Your task to perform on an android device: Open settings on Google Maps Image 0: 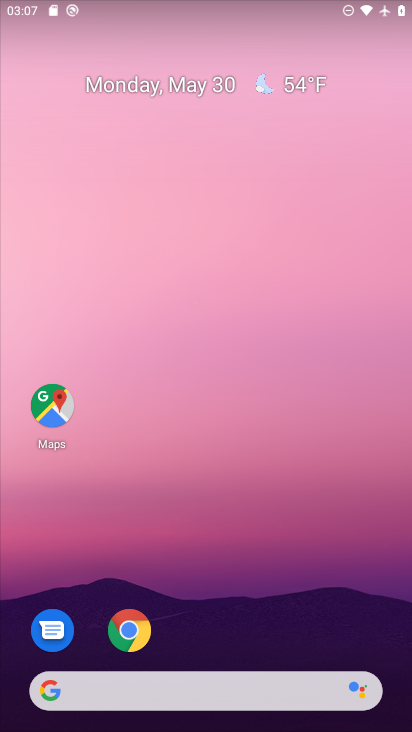
Step 0: click (44, 411)
Your task to perform on an android device: Open settings on Google Maps Image 1: 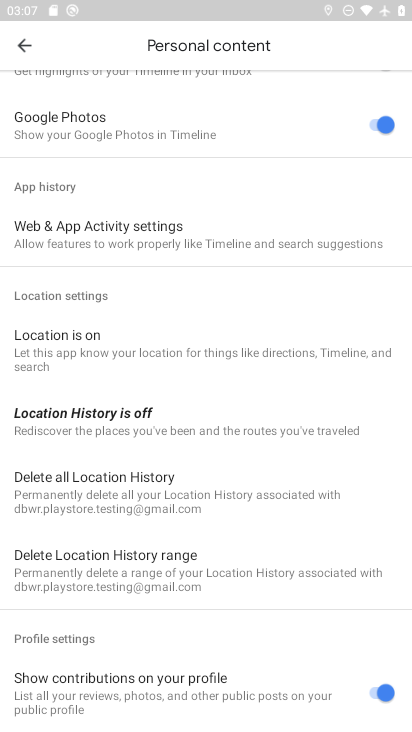
Step 1: click (21, 46)
Your task to perform on an android device: Open settings on Google Maps Image 2: 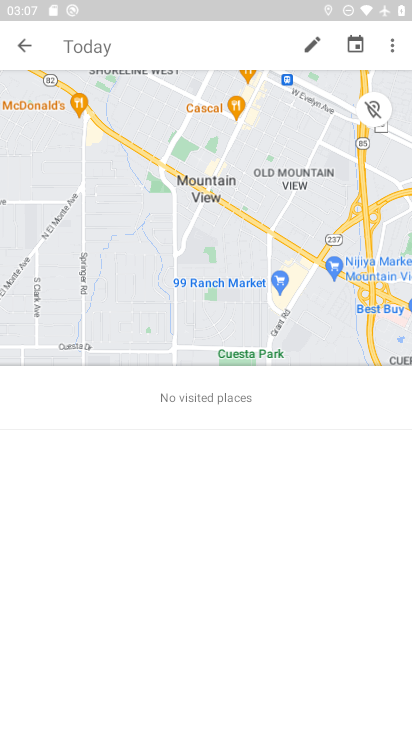
Step 2: click (22, 48)
Your task to perform on an android device: Open settings on Google Maps Image 3: 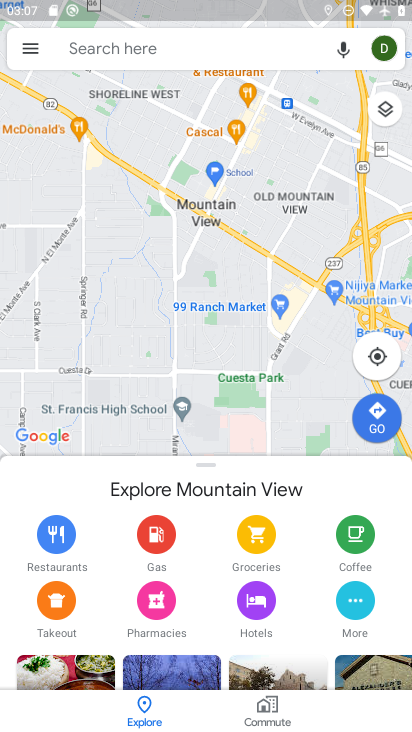
Step 3: click (28, 53)
Your task to perform on an android device: Open settings on Google Maps Image 4: 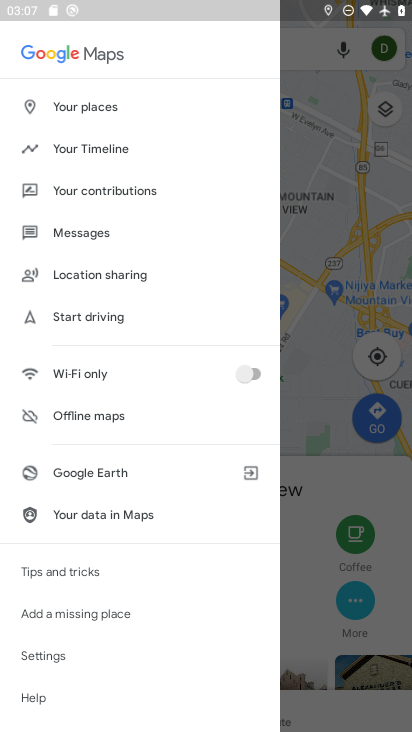
Step 4: click (46, 657)
Your task to perform on an android device: Open settings on Google Maps Image 5: 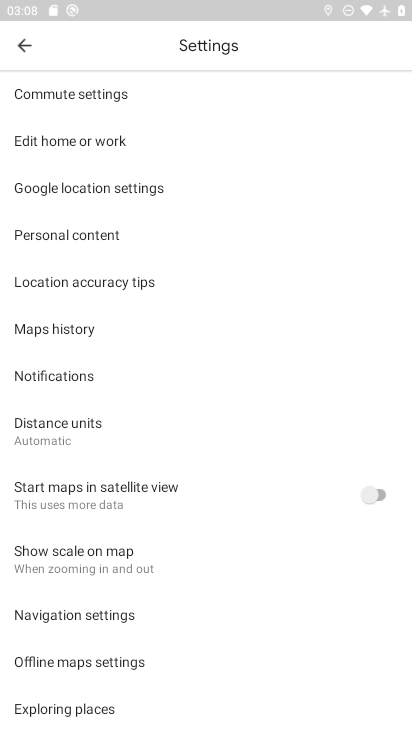
Step 5: task complete